Your task to perform on an android device: create a new album in the google photos Image 0: 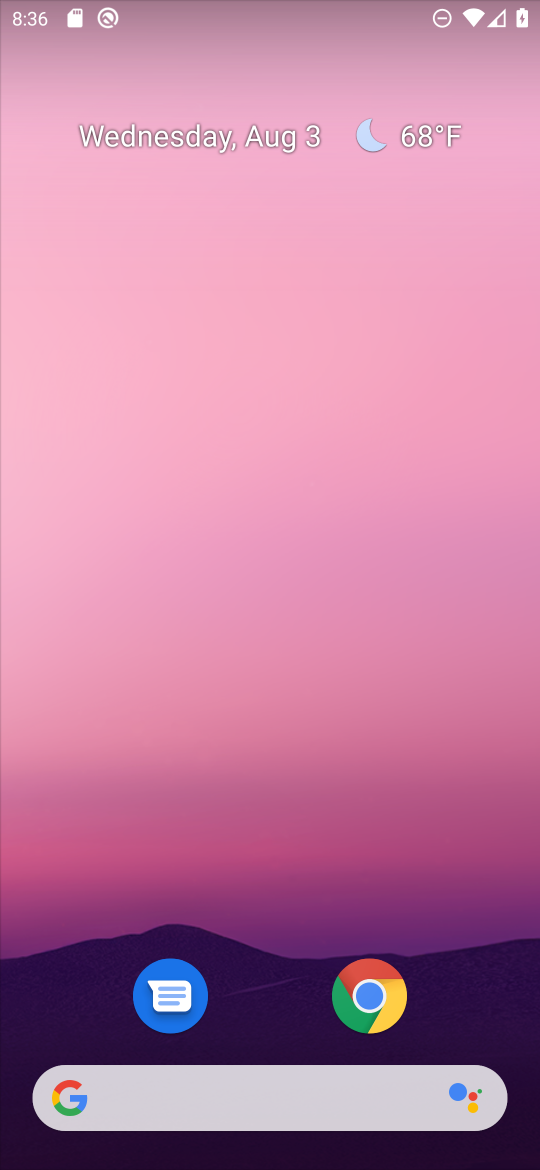
Step 0: drag from (275, 883) to (304, 3)
Your task to perform on an android device: create a new album in the google photos Image 1: 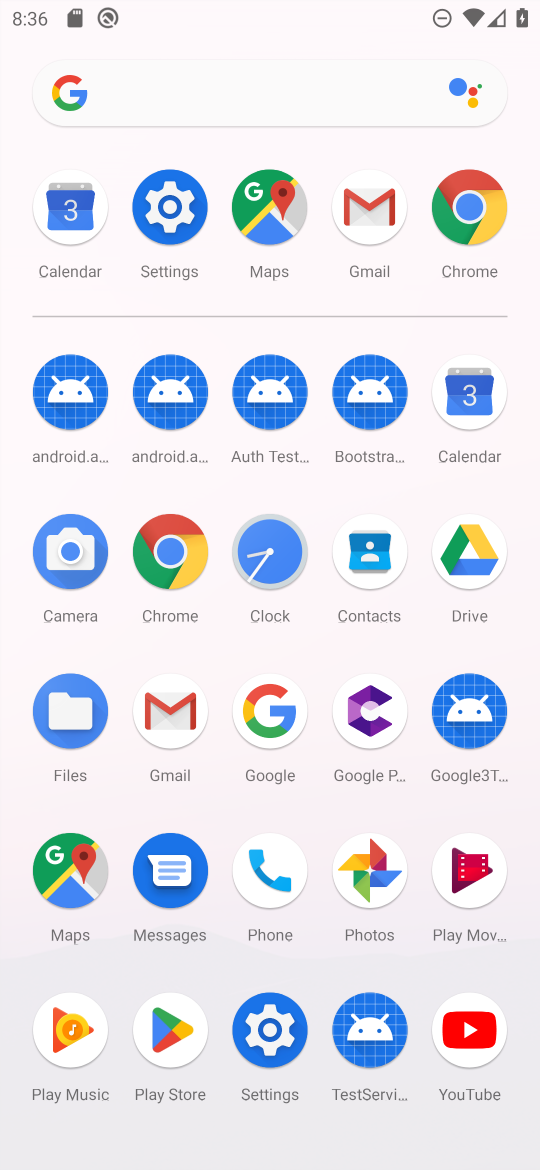
Step 1: click (372, 880)
Your task to perform on an android device: create a new album in the google photos Image 2: 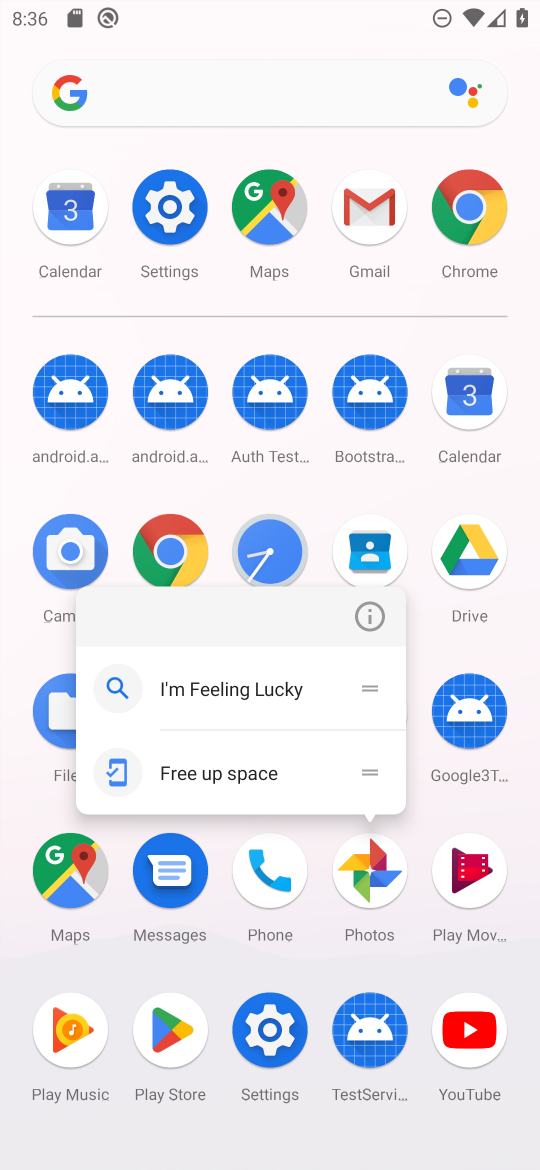
Step 2: click (372, 880)
Your task to perform on an android device: create a new album in the google photos Image 3: 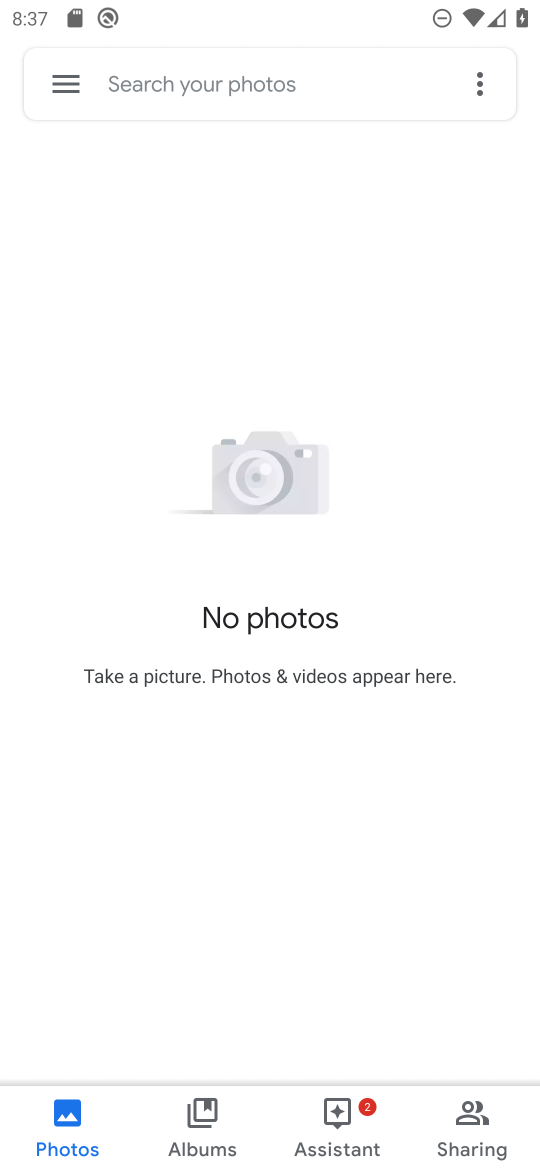
Step 3: click (206, 1114)
Your task to perform on an android device: create a new album in the google photos Image 4: 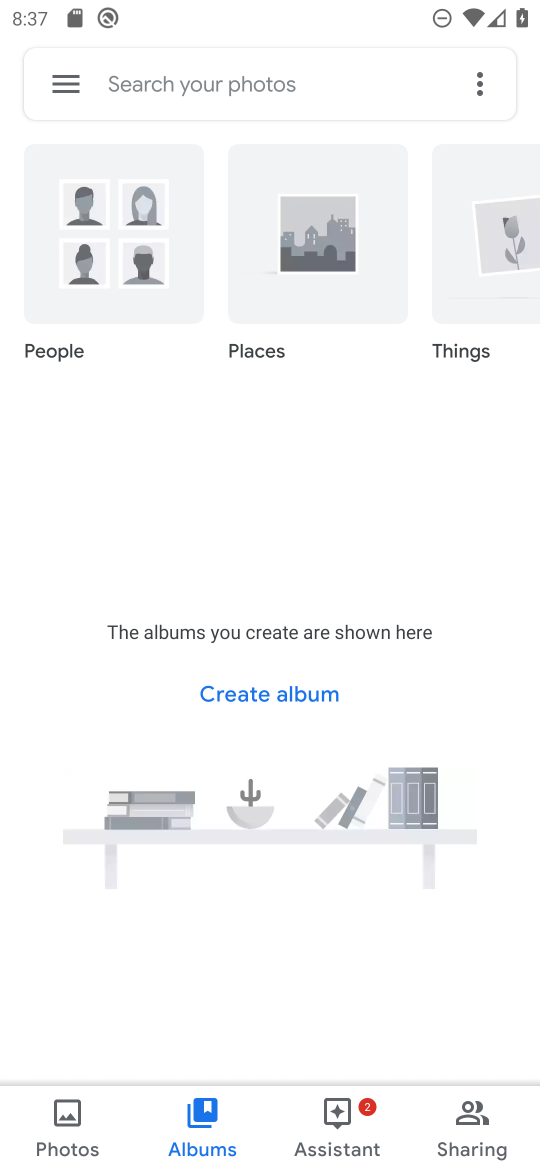
Step 4: task complete